Your task to perform on an android device: Open sound settings Image 0: 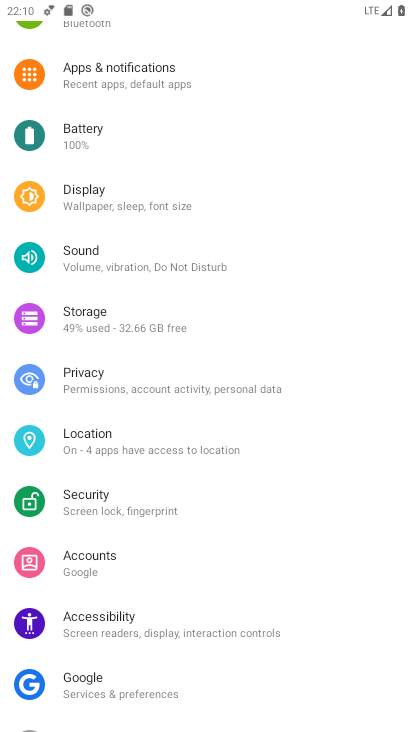
Step 0: click (110, 266)
Your task to perform on an android device: Open sound settings Image 1: 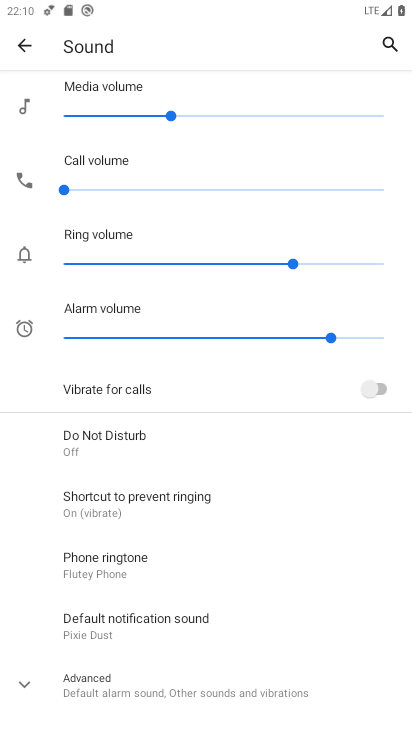
Step 1: task complete